Your task to perform on an android device: search for starred emails in the gmail app Image 0: 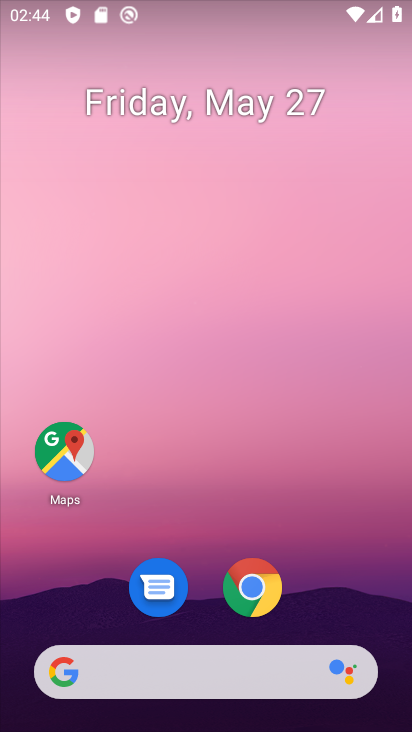
Step 0: press home button
Your task to perform on an android device: search for starred emails in the gmail app Image 1: 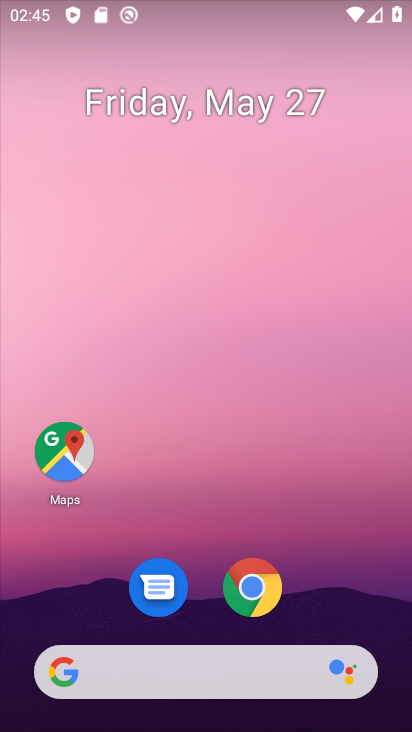
Step 1: drag from (316, 526) to (290, 195)
Your task to perform on an android device: search for starred emails in the gmail app Image 2: 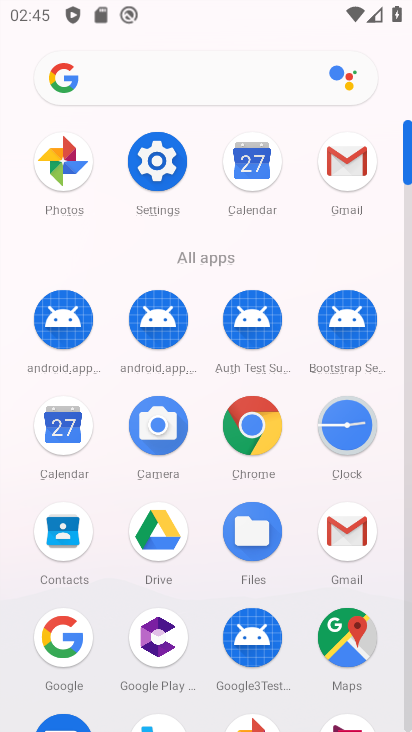
Step 2: click (348, 161)
Your task to perform on an android device: search for starred emails in the gmail app Image 3: 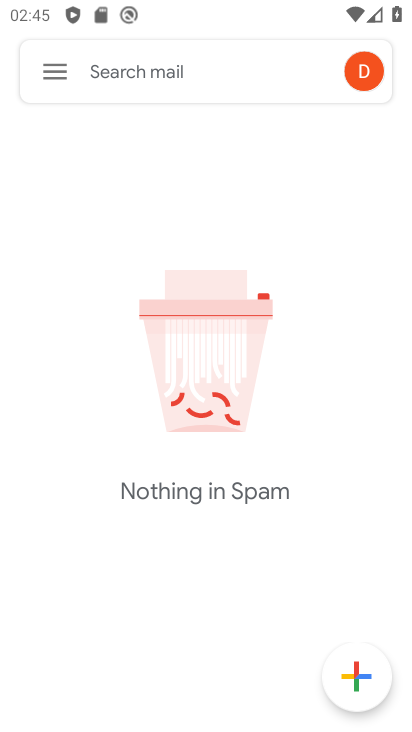
Step 3: click (44, 78)
Your task to perform on an android device: search for starred emails in the gmail app Image 4: 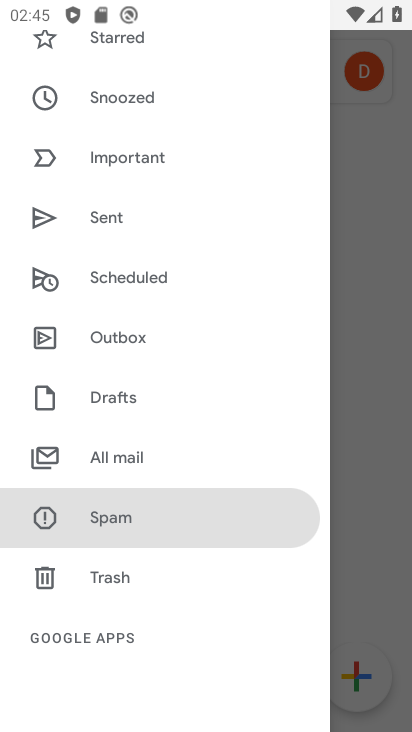
Step 4: drag from (205, 195) to (209, 452)
Your task to perform on an android device: search for starred emails in the gmail app Image 5: 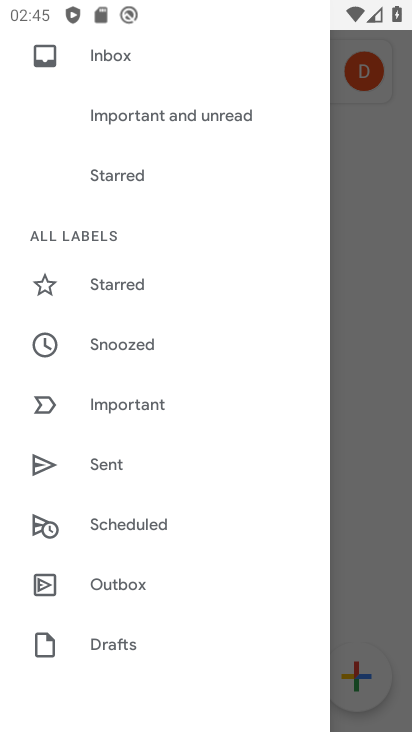
Step 5: click (110, 285)
Your task to perform on an android device: search for starred emails in the gmail app Image 6: 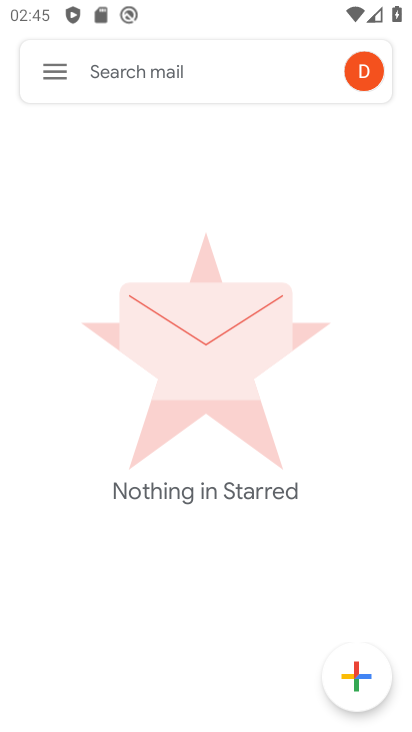
Step 6: task complete